Your task to perform on an android device: Toggle the flashlight Image 0: 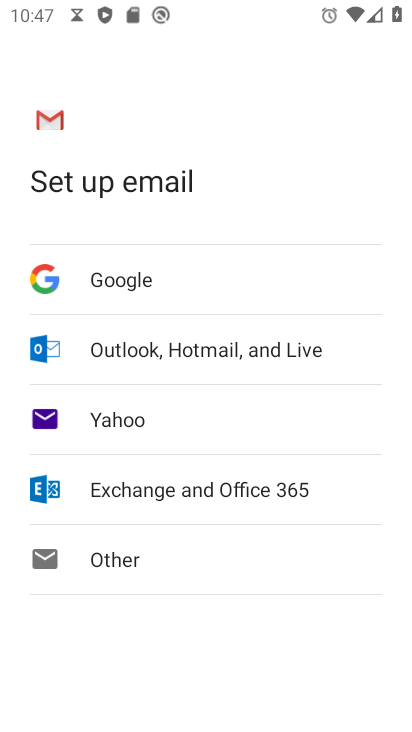
Step 0: press home button
Your task to perform on an android device: Toggle the flashlight Image 1: 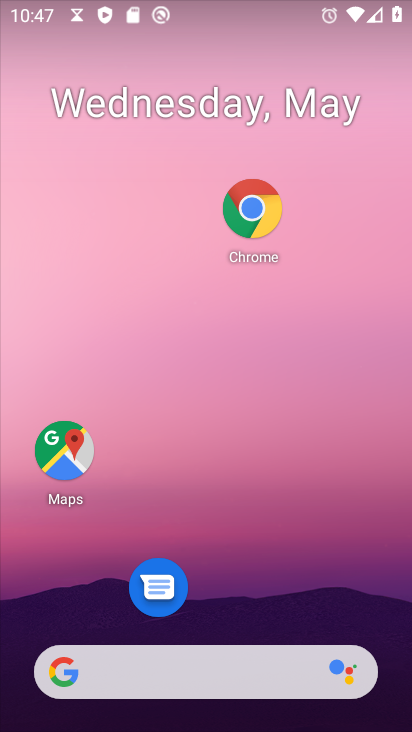
Step 1: drag from (244, 629) to (224, 168)
Your task to perform on an android device: Toggle the flashlight Image 2: 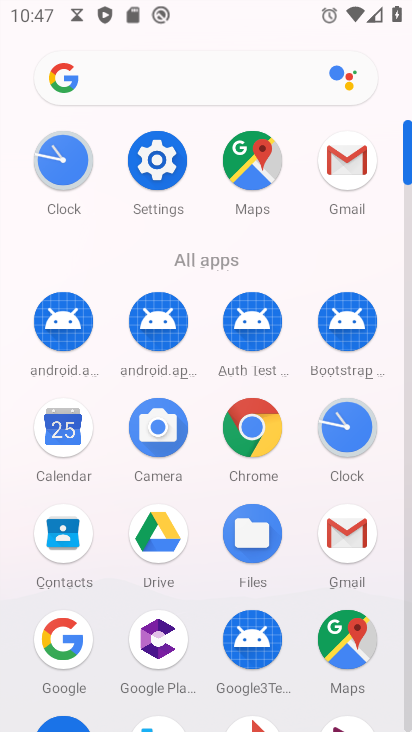
Step 2: click (166, 161)
Your task to perform on an android device: Toggle the flashlight Image 3: 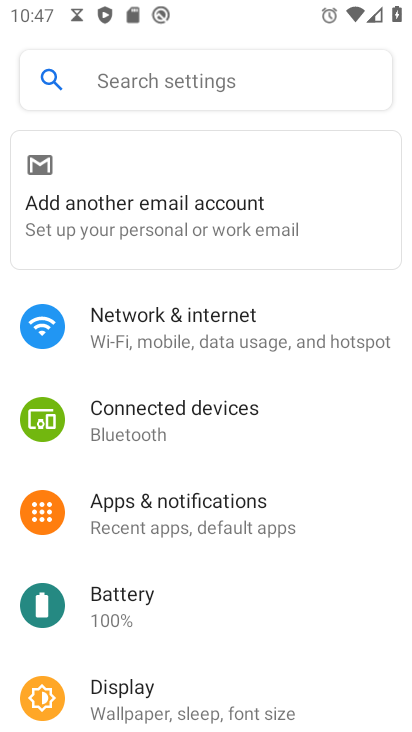
Step 3: task complete